Your task to perform on an android device: Check the weather Image 0: 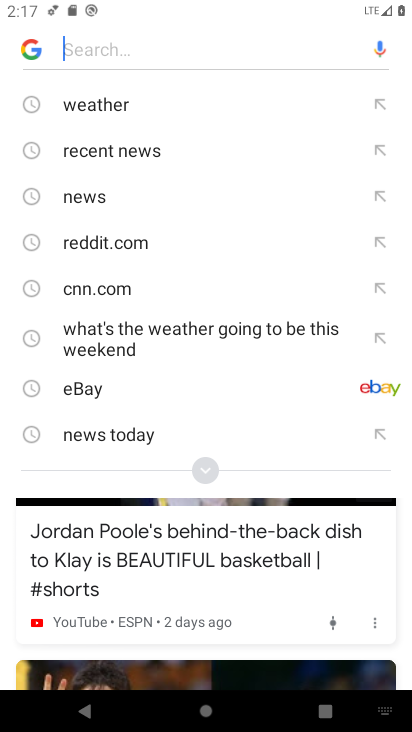
Step 0: press home button
Your task to perform on an android device: Check the weather Image 1: 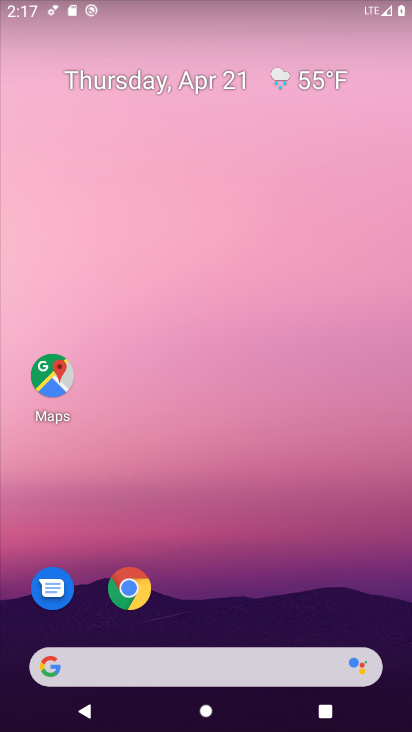
Step 1: drag from (207, 622) to (179, 55)
Your task to perform on an android device: Check the weather Image 2: 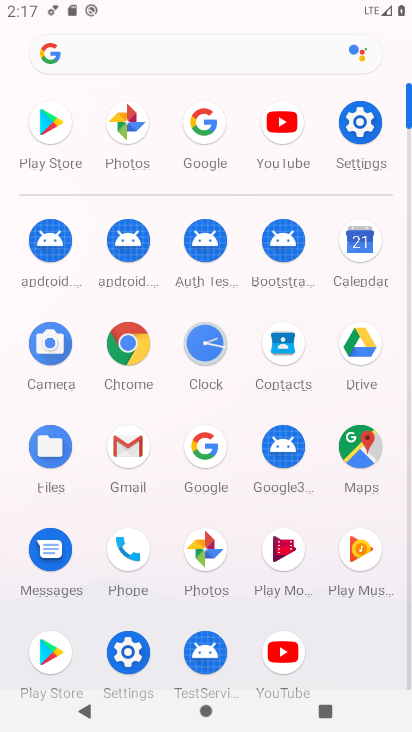
Step 2: click (95, 57)
Your task to perform on an android device: Check the weather Image 3: 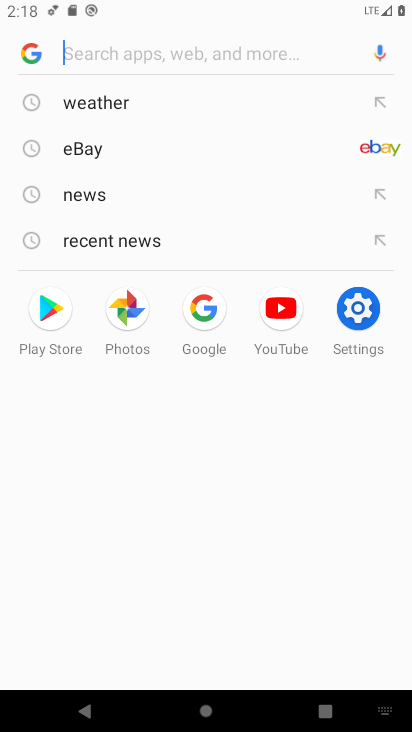
Step 3: type "weather"
Your task to perform on an android device: Check the weather Image 4: 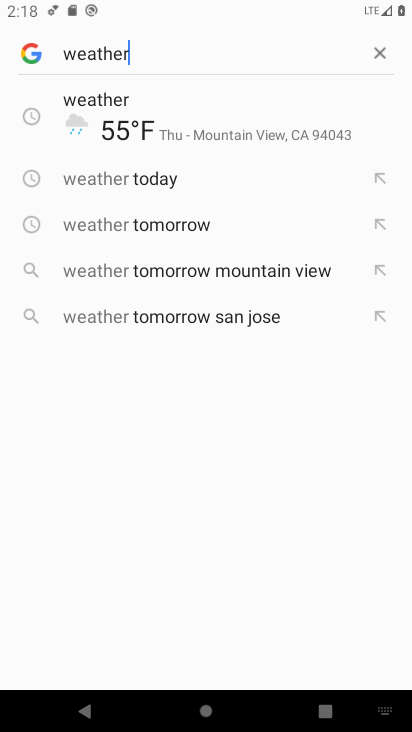
Step 4: click (209, 125)
Your task to perform on an android device: Check the weather Image 5: 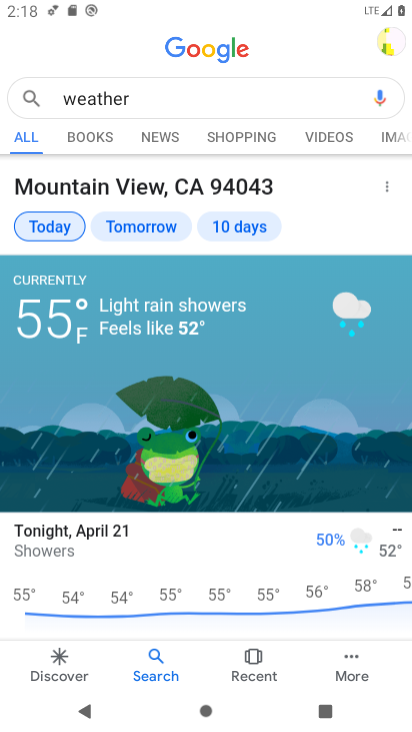
Step 5: task complete